Your task to perform on an android device: move an email to a new category in the gmail app Image 0: 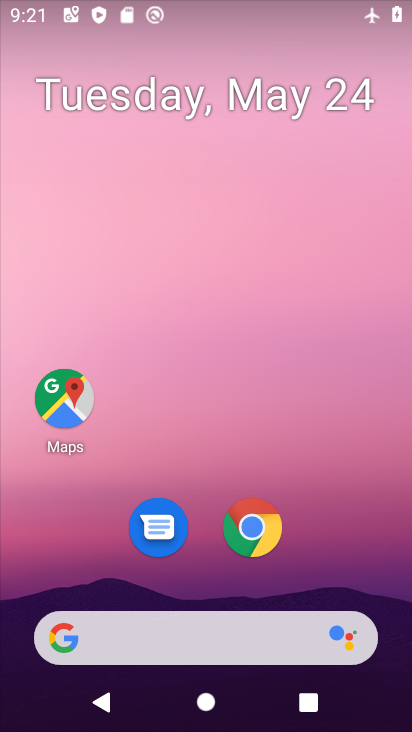
Step 0: drag from (400, 700) to (325, 220)
Your task to perform on an android device: move an email to a new category in the gmail app Image 1: 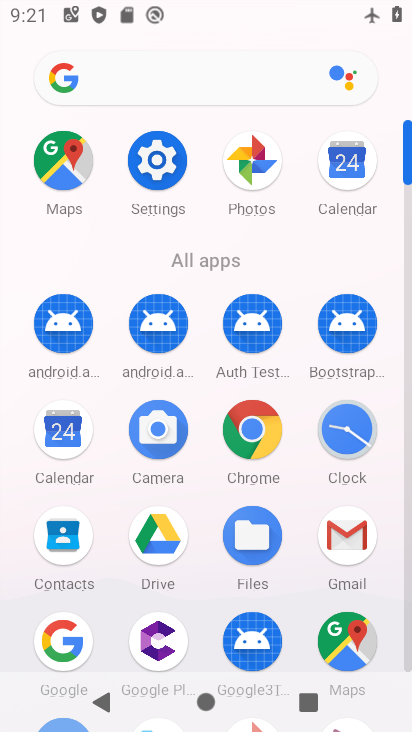
Step 1: click (349, 526)
Your task to perform on an android device: move an email to a new category in the gmail app Image 2: 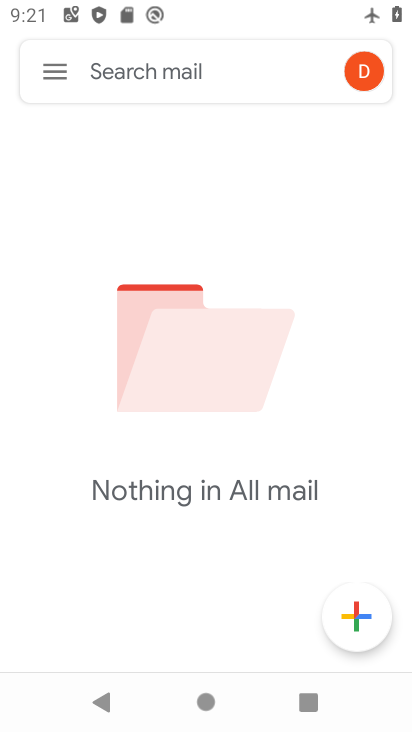
Step 2: click (51, 64)
Your task to perform on an android device: move an email to a new category in the gmail app Image 3: 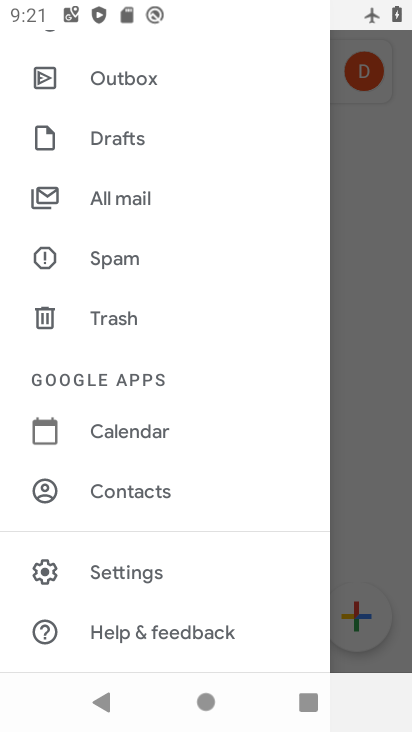
Step 3: drag from (235, 79) to (272, 534)
Your task to perform on an android device: move an email to a new category in the gmail app Image 4: 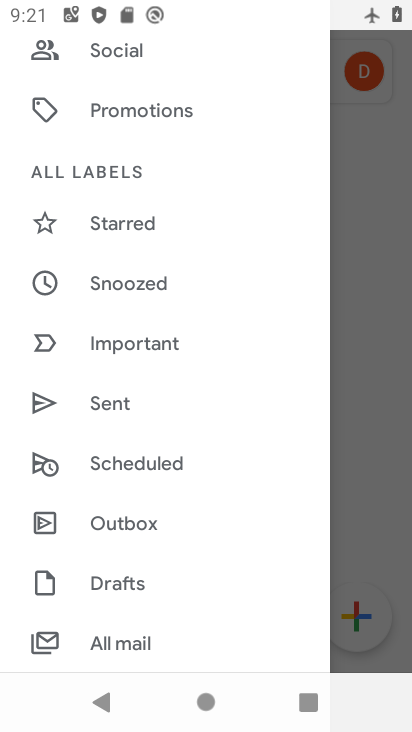
Step 4: drag from (233, 68) to (237, 553)
Your task to perform on an android device: move an email to a new category in the gmail app Image 5: 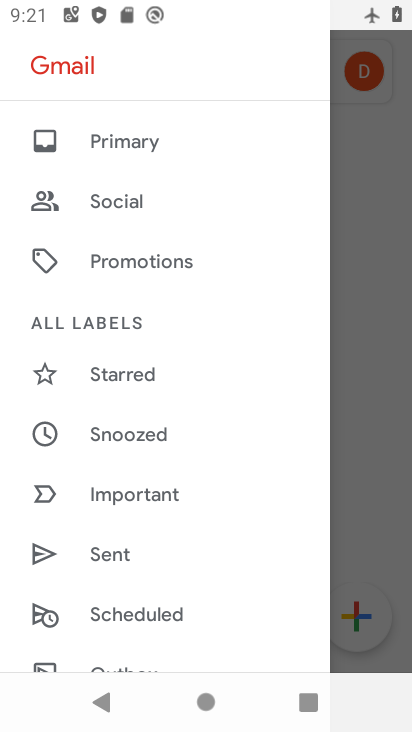
Step 5: drag from (266, 116) to (256, 574)
Your task to perform on an android device: move an email to a new category in the gmail app Image 6: 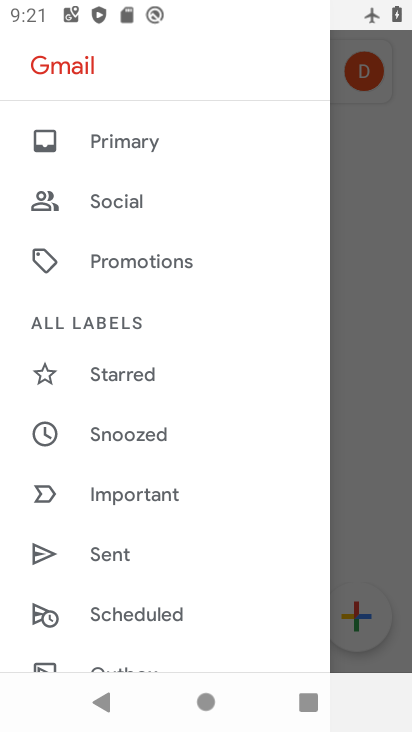
Step 6: drag from (259, 88) to (265, 575)
Your task to perform on an android device: move an email to a new category in the gmail app Image 7: 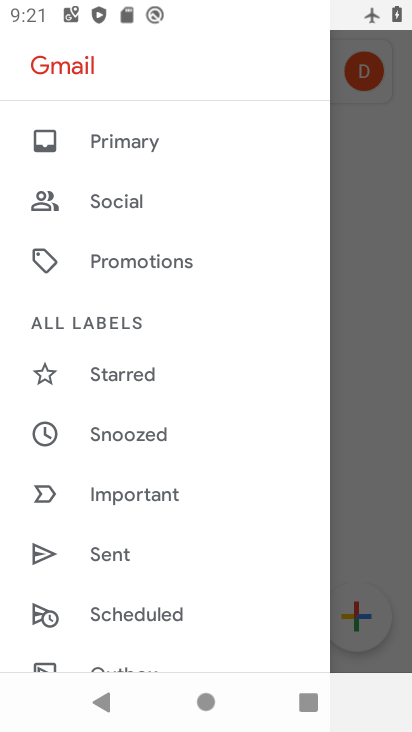
Step 7: click (122, 140)
Your task to perform on an android device: move an email to a new category in the gmail app Image 8: 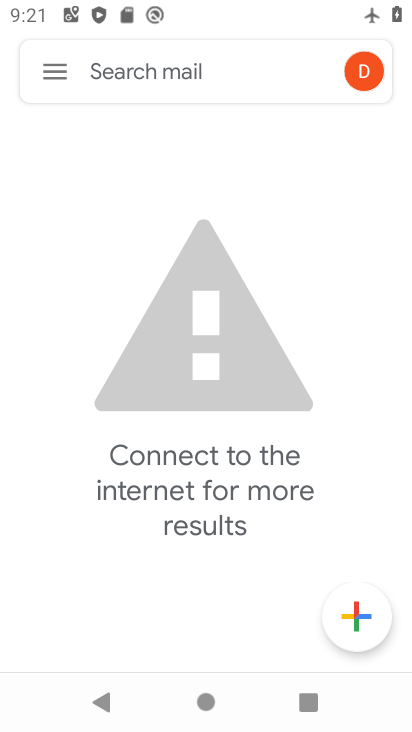
Step 8: press back button
Your task to perform on an android device: move an email to a new category in the gmail app Image 9: 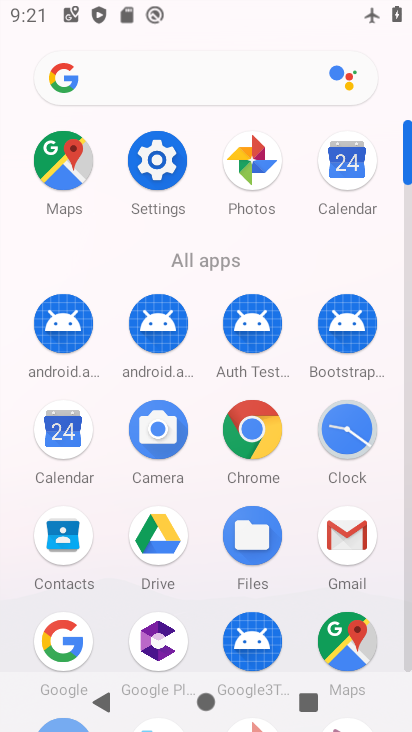
Step 9: click (338, 518)
Your task to perform on an android device: move an email to a new category in the gmail app Image 10: 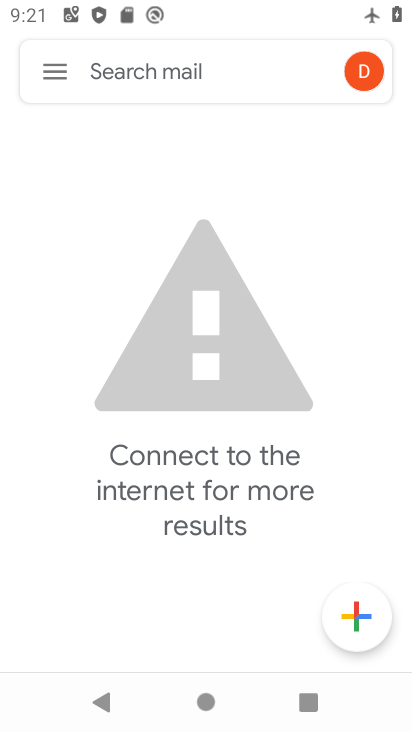
Step 10: task complete